Your task to perform on an android device: set the timer Image 0: 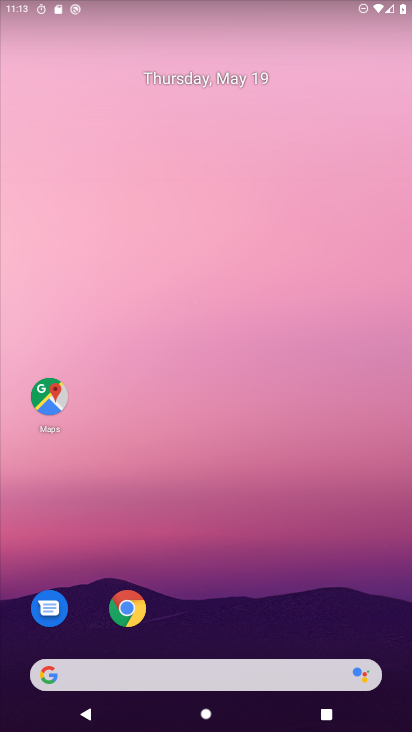
Step 0: drag from (379, 579) to (336, 303)
Your task to perform on an android device: set the timer Image 1: 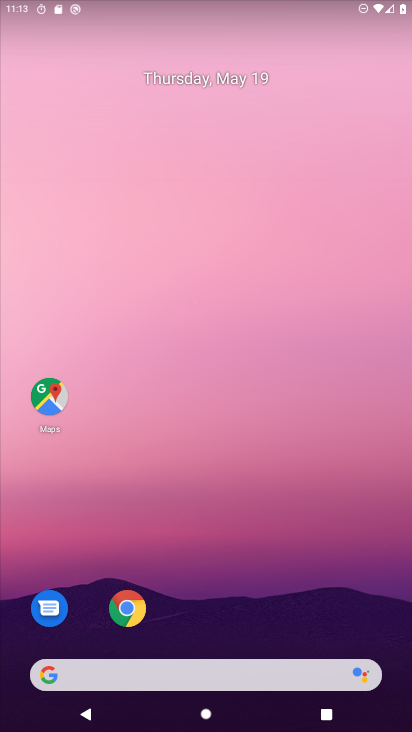
Step 1: drag from (389, 544) to (344, 153)
Your task to perform on an android device: set the timer Image 2: 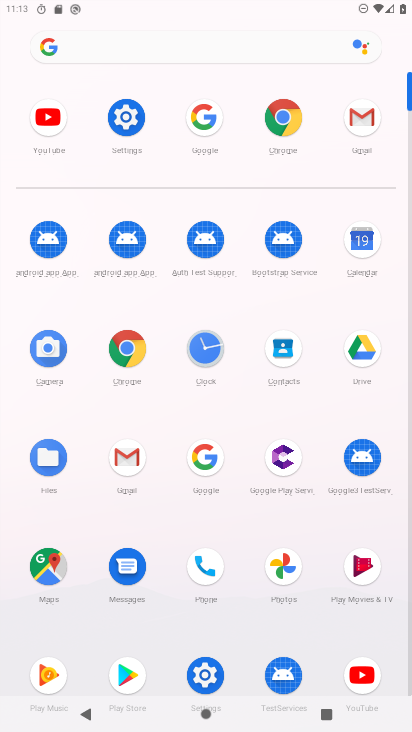
Step 2: click (200, 340)
Your task to perform on an android device: set the timer Image 3: 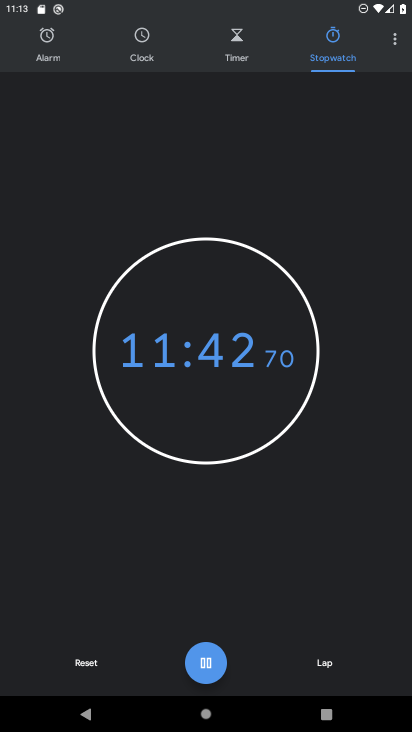
Step 3: click (90, 652)
Your task to perform on an android device: set the timer Image 4: 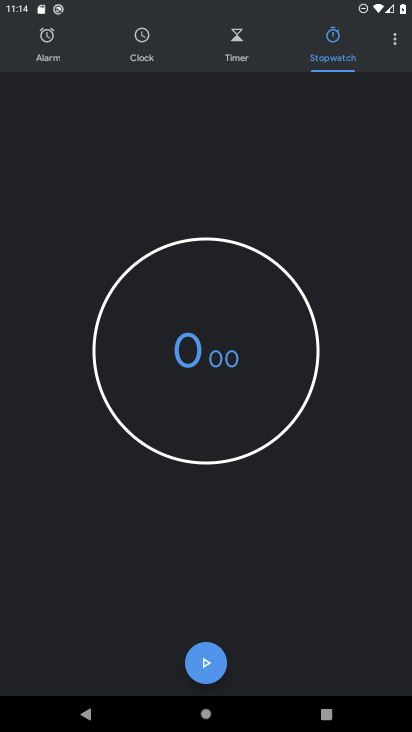
Step 4: click (210, 662)
Your task to perform on an android device: set the timer Image 5: 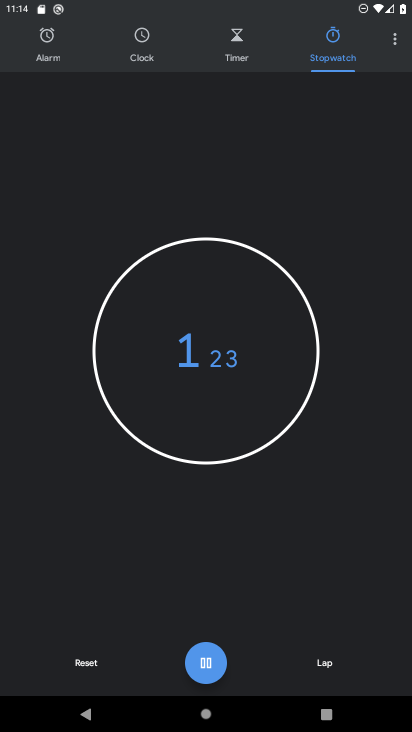
Step 5: task complete